Your task to perform on an android device: empty trash in the gmail app Image 0: 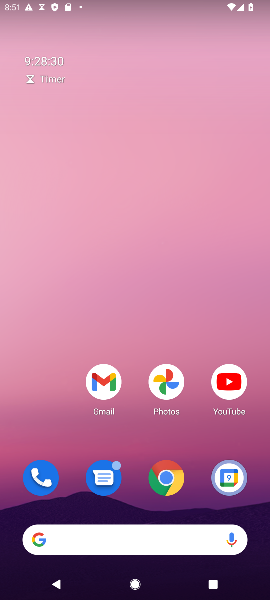
Step 0: drag from (191, 352) to (145, 101)
Your task to perform on an android device: empty trash in the gmail app Image 1: 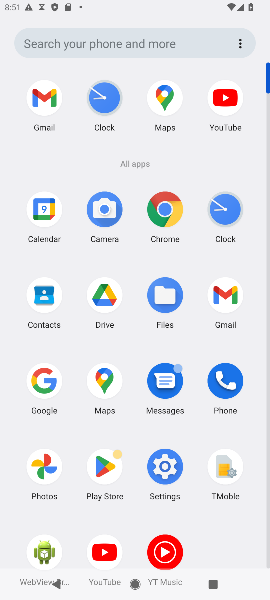
Step 1: click (39, 106)
Your task to perform on an android device: empty trash in the gmail app Image 2: 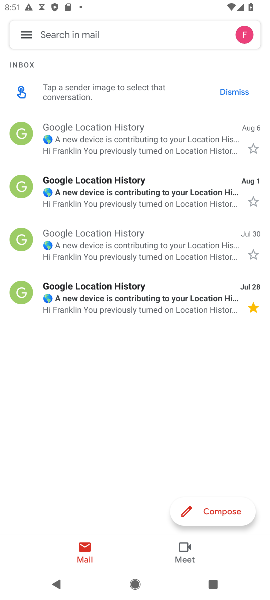
Step 2: click (27, 41)
Your task to perform on an android device: empty trash in the gmail app Image 3: 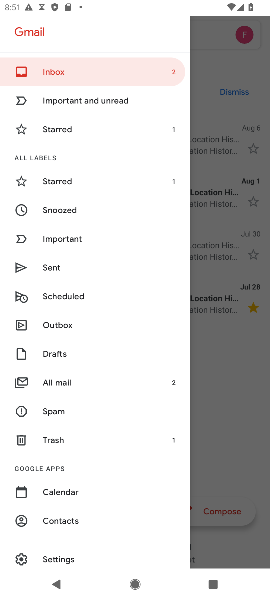
Step 3: click (82, 439)
Your task to perform on an android device: empty trash in the gmail app Image 4: 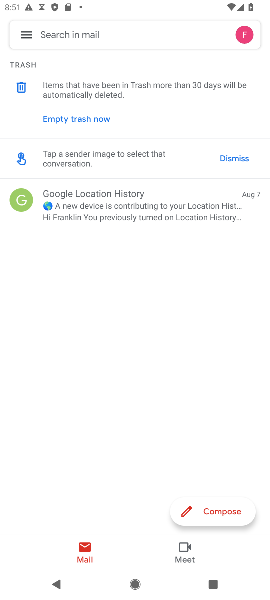
Step 4: click (75, 121)
Your task to perform on an android device: empty trash in the gmail app Image 5: 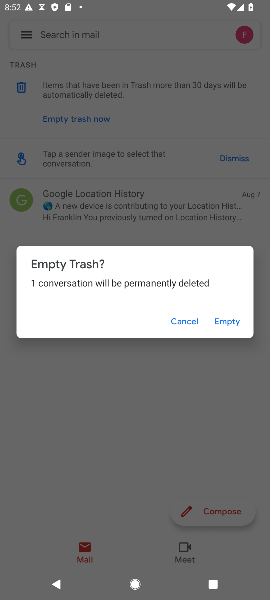
Step 5: click (231, 321)
Your task to perform on an android device: empty trash in the gmail app Image 6: 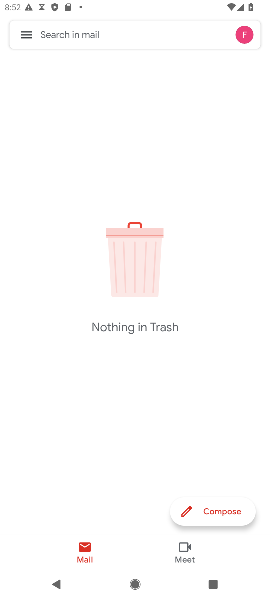
Step 6: task complete